Your task to perform on an android device: change the clock style Image 0: 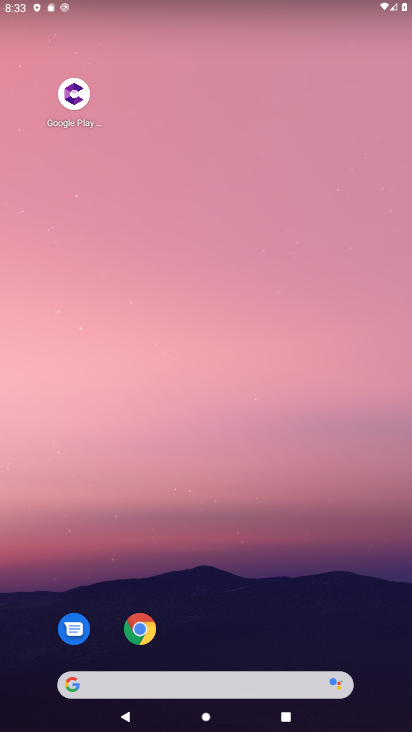
Step 0: drag from (220, 616) to (200, 66)
Your task to perform on an android device: change the clock style Image 1: 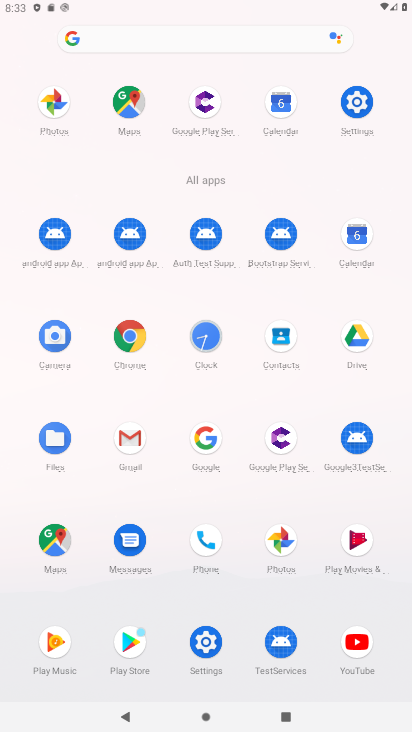
Step 1: click (206, 335)
Your task to perform on an android device: change the clock style Image 2: 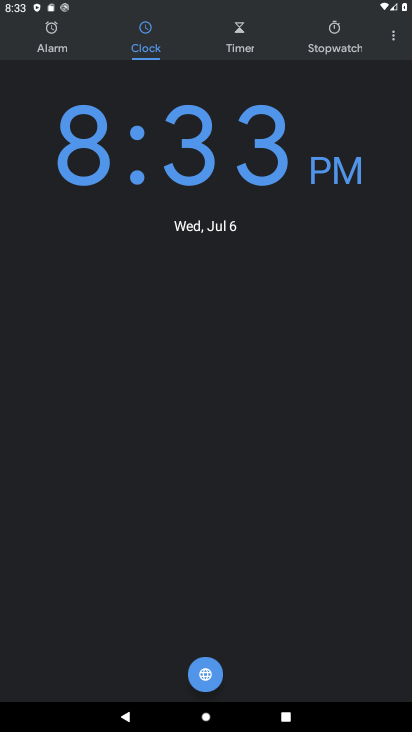
Step 2: click (395, 43)
Your task to perform on an android device: change the clock style Image 3: 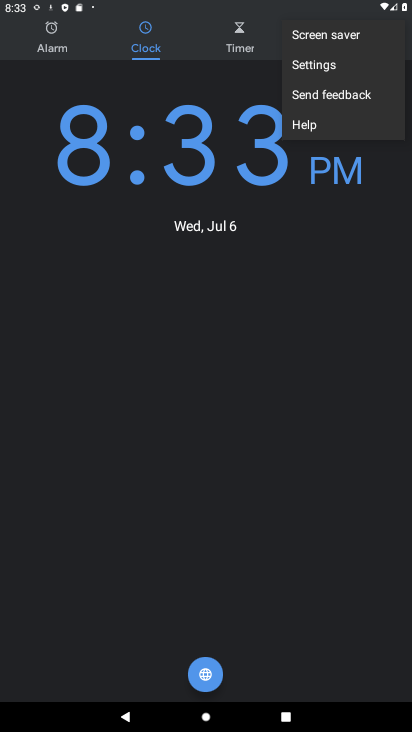
Step 3: click (332, 59)
Your task to perform on an android device: change the clock style Image 4: 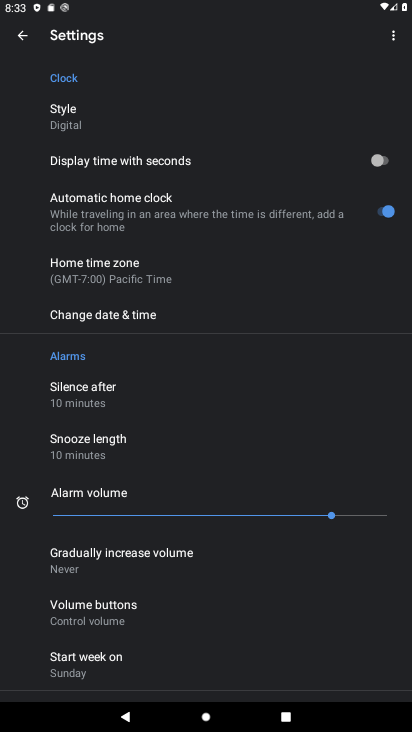
Step 4: click (75, 111)
Your task to perform on an android device: change the clock style Image 5: 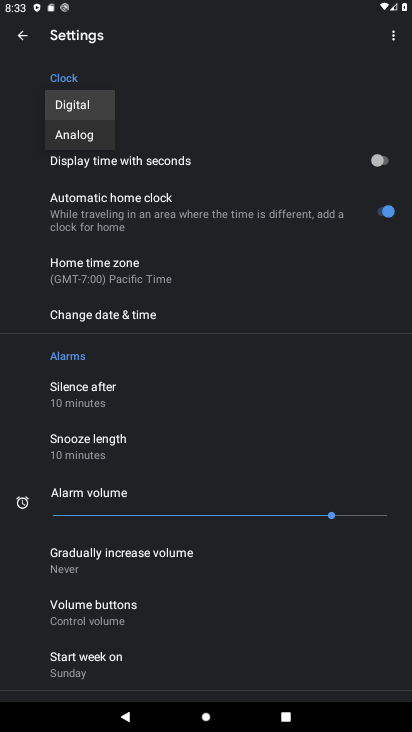
Step 5: click (78, 139)
Your task to perform on an android device: change the clock style Image 6: 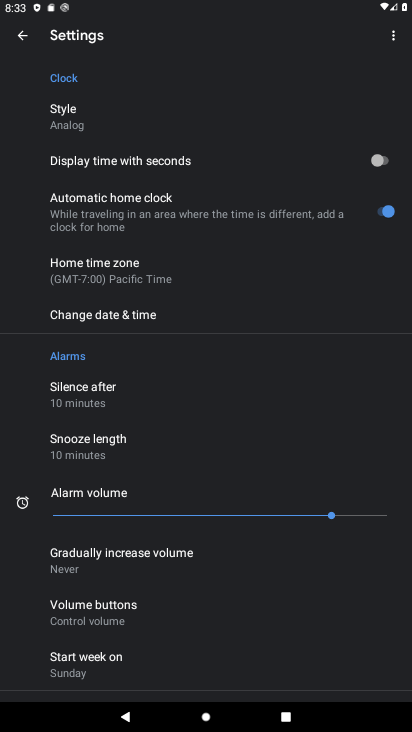
Step 6: task complete